Your task to perform on an android device: turn on bluetooth scan Image 0: 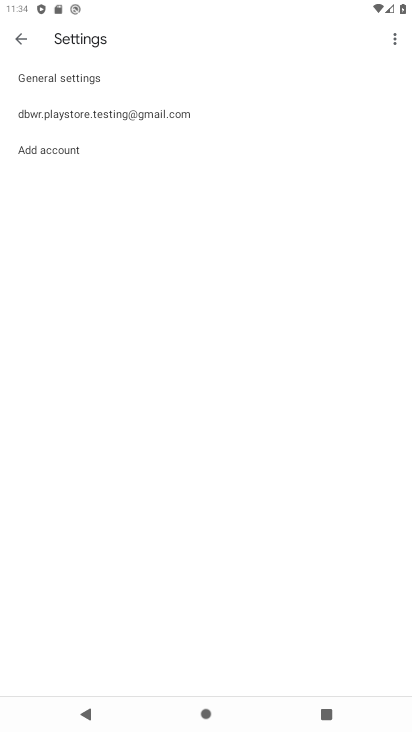
Step 0: drag from (285, 575) to (219, 167)
Your task to perform on an android device: turn on bluetooth scan Image 1: 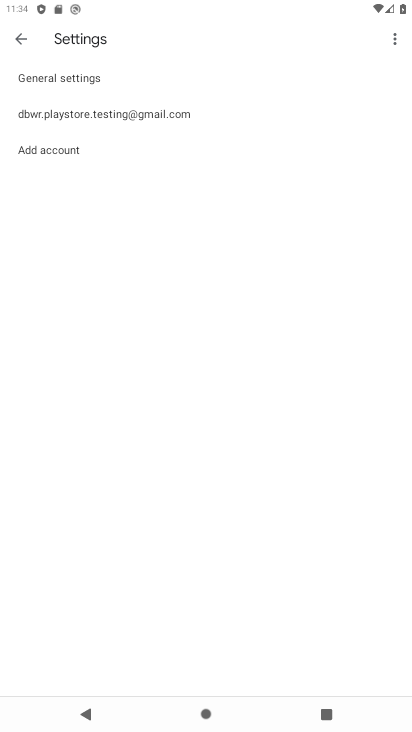
Step 1: press back button
Your task to perform on an android device: turn on bluetooth scan Image 2: 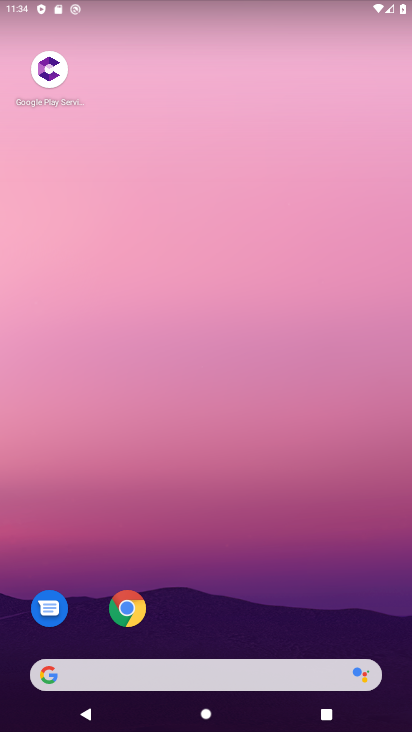
Step 2: drag from (258, 552) to (205, 54)
Your task to perform on an android device: turn on bluetooth scan Image 3: 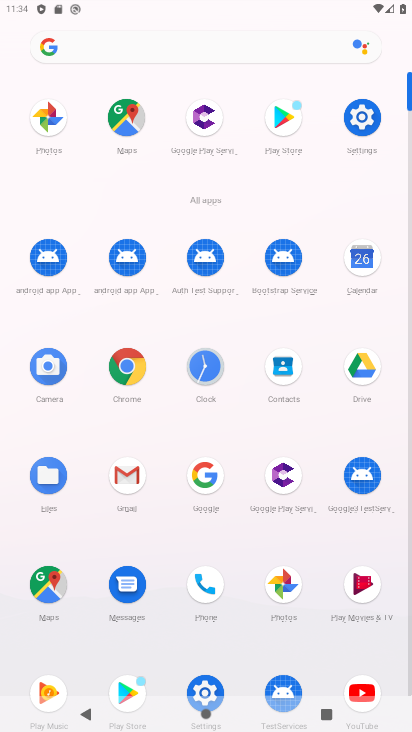
Step 3: drag from (22, 461) to (12, 342)
Your task to perform on an android device: turn on bluetooth scan Image 4: 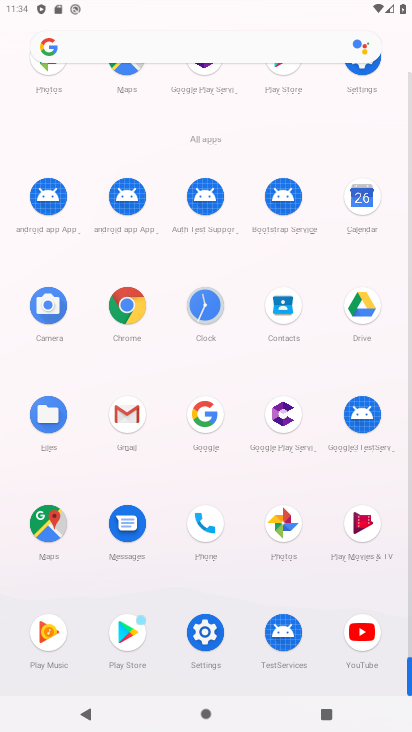
Step 4: click (204, 628)
Your task to perform on an android device: turn on bluetooth scan Image 5: 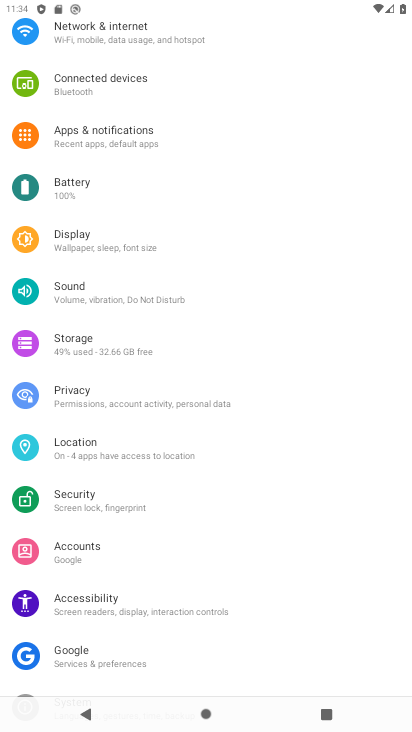
Step 5: click (100, 450)
Your task to perform on an android device: turn on bluetooth scan Image 6: 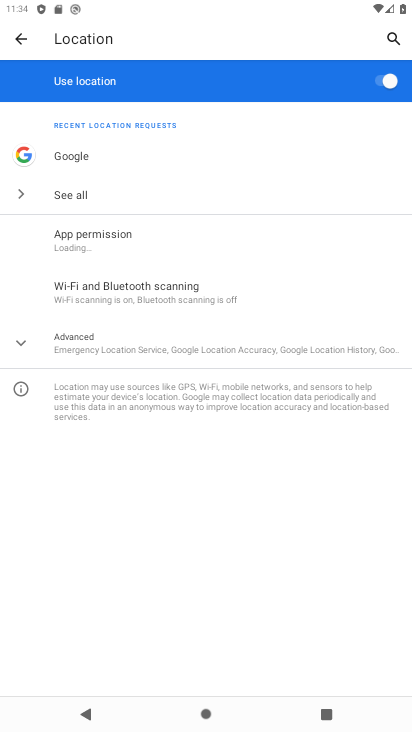
Step 6: click (227, 286)
Your task to perform on an android device: turn on bluetooth scan Image 7: 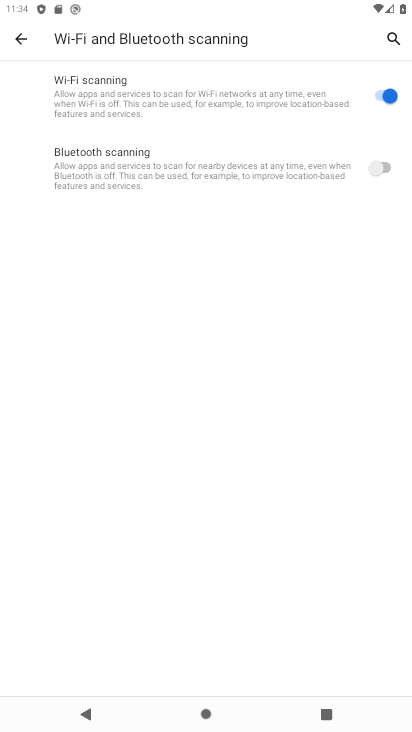
Step 7: click (370, 153)
Your task to perform on an android device: turn on bluetooth scan Image 8: 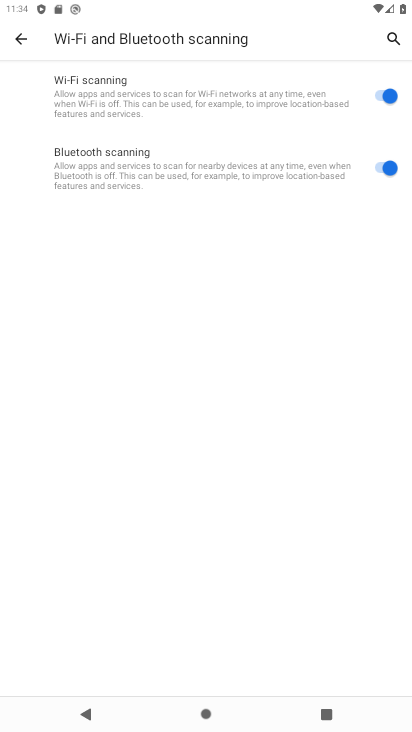
Step 8: task complete